Your task to perform on an android device: Do I have any events this weekend? Image 0: 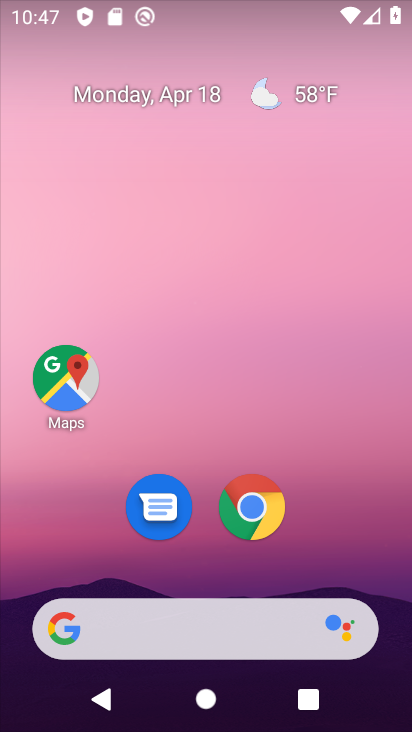
Step 0: click (120, 105)
Your task to perform on an android device: Do I have any events this weekend? Image 1: 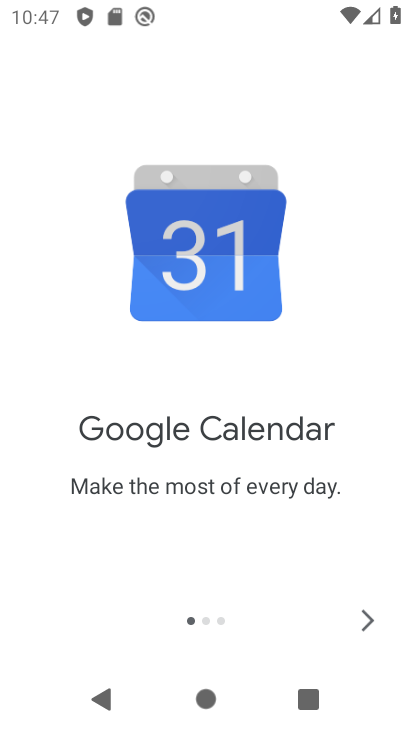
Step 1: click (373, 633)
Your task to perform on an android device: Do I have any events this weekend? Image 2: 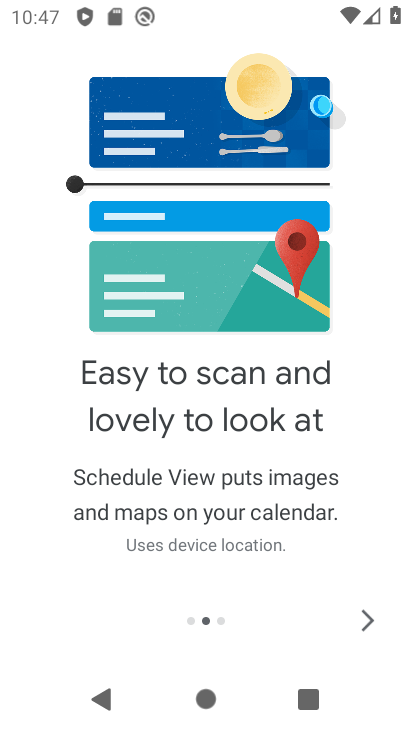
Step 2: click (373, 633)
Your task to perform on an android device: Do I have any events this weekend? Image 3: 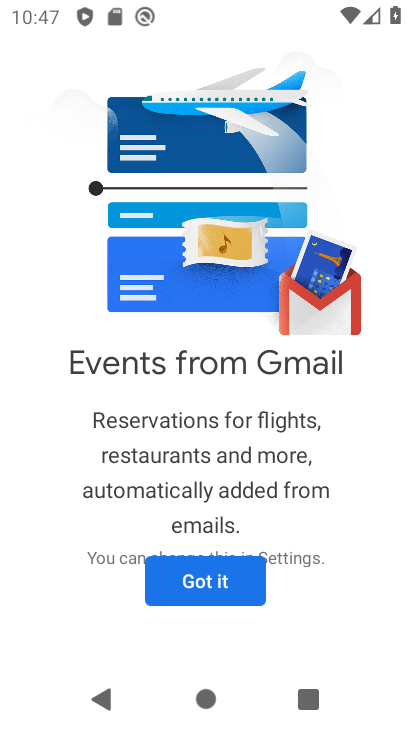
Step 3: click (232, 558)
Your task to perform on an android device: Do I have any events this weekend? Image 4: 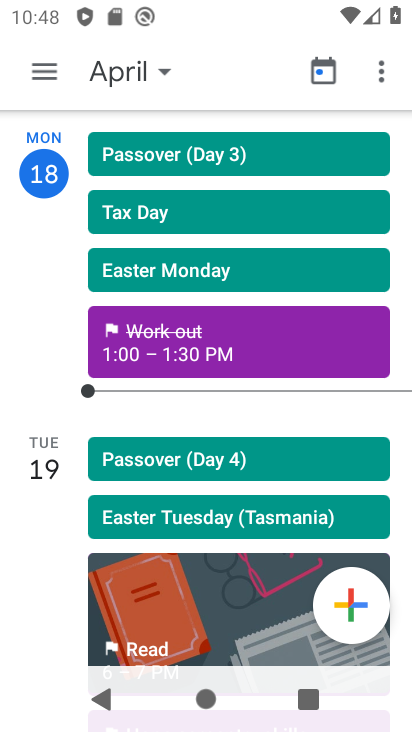
Step 4: click (160, 85)
Your task to perform on an android device: Do I have any events this weekend? Image 5: 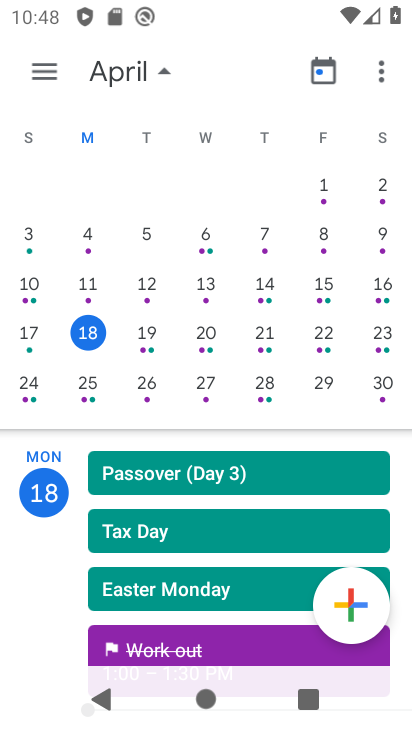
Step 5: click (383, 326)
Your task to perform on an android device: Do I have any events this weekend? Image 6: 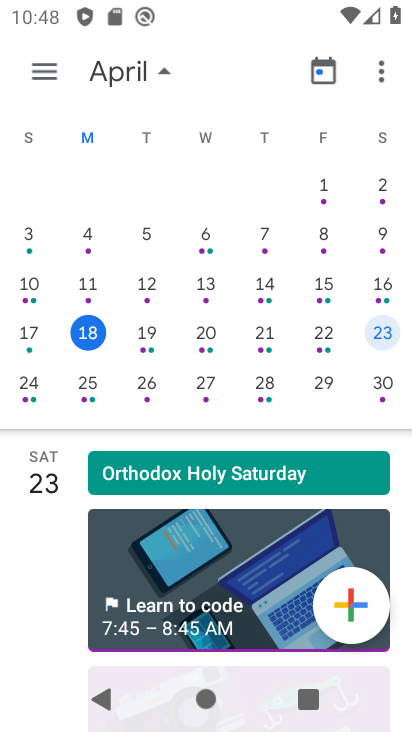
Step 6: click (383, 326)
Your task to perform on an android device: Do I have any events this weekend? Image 7: 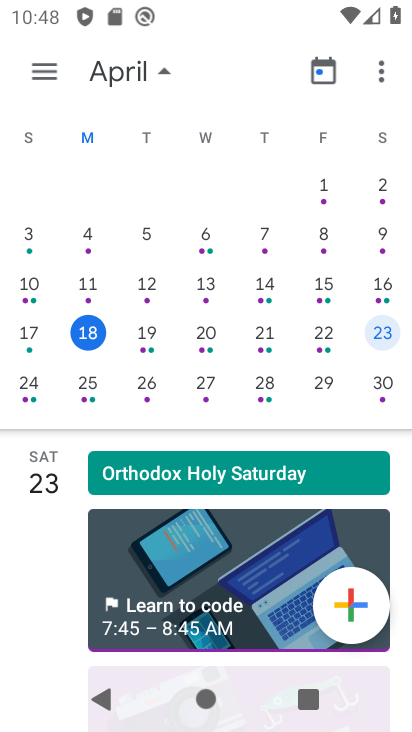
Step 7: drag from (38, 615) to (116, 80)
Your task to perform on an android device: Do I have any events this weekend? Image 8: 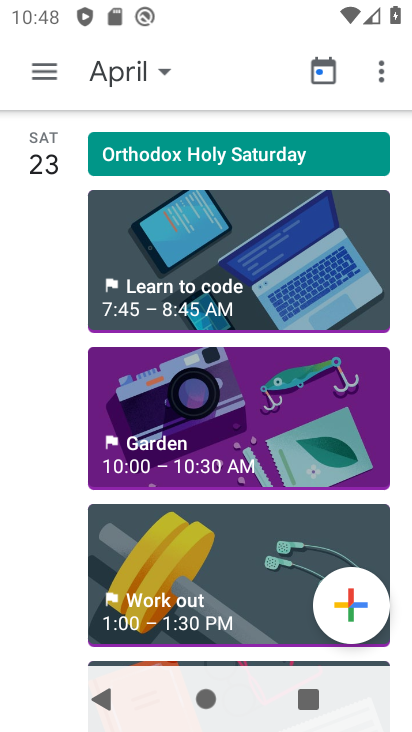
Step 8: click (214, 428)
Your task to perform on an android device: Do I have any events this weekend? Image 9: 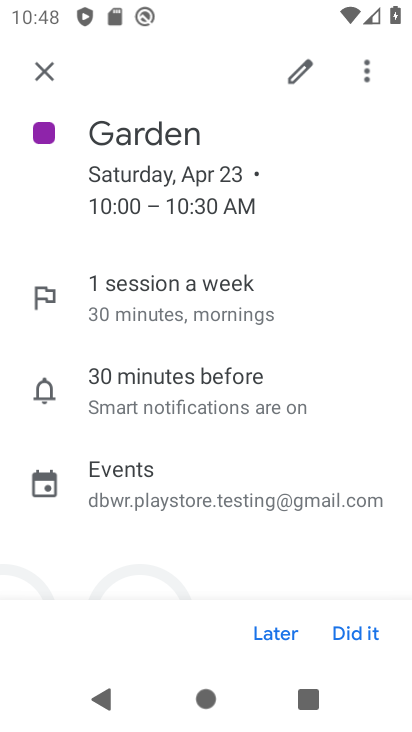
Step 9: task complete